Your task to perform on an android device: turn on translation in the chrome app Image 0: 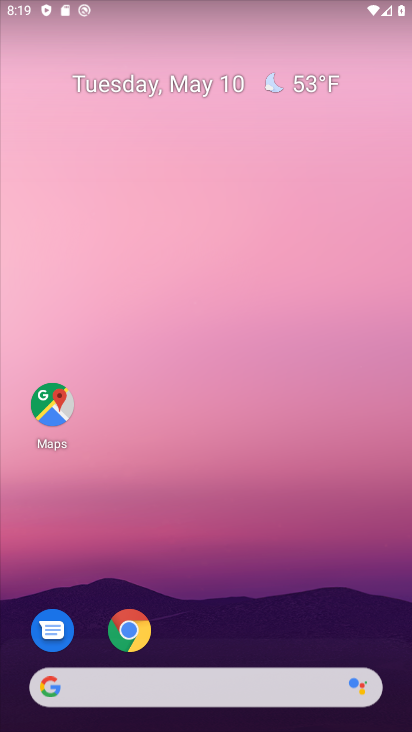
Step 0: click (141, 634)
Your task to perform on an android device: turn on translation in the chrome app Image 1: 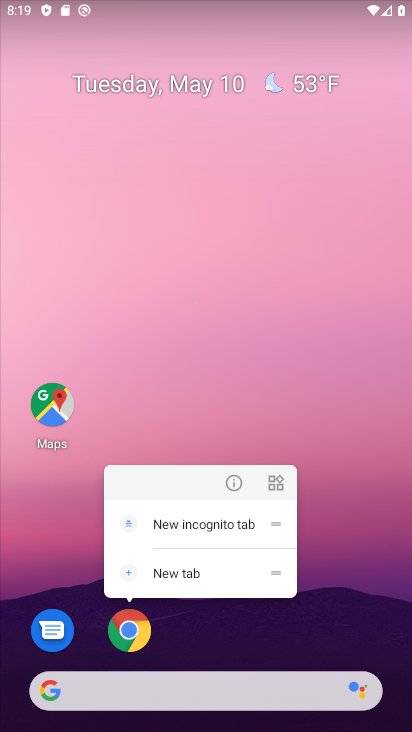
Step 1: click (137, 634)
Your task to perform on an android device: turn on translation in the chrome app Image 2: 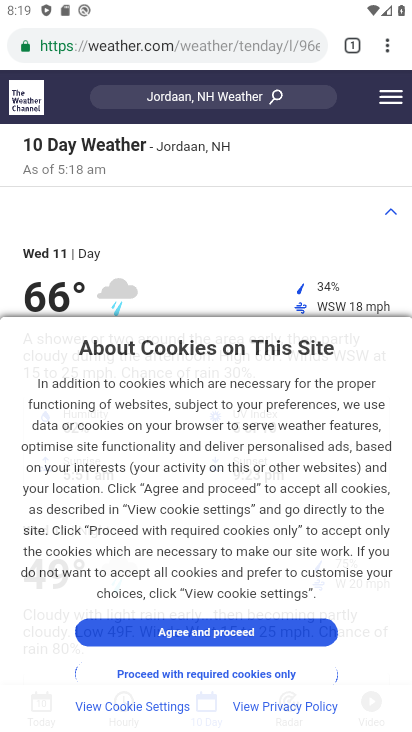
Step 2: drag from (392, 48) to (280, 489)
Your task to perform on an android device: turn on translation in the chrome app Image 3: 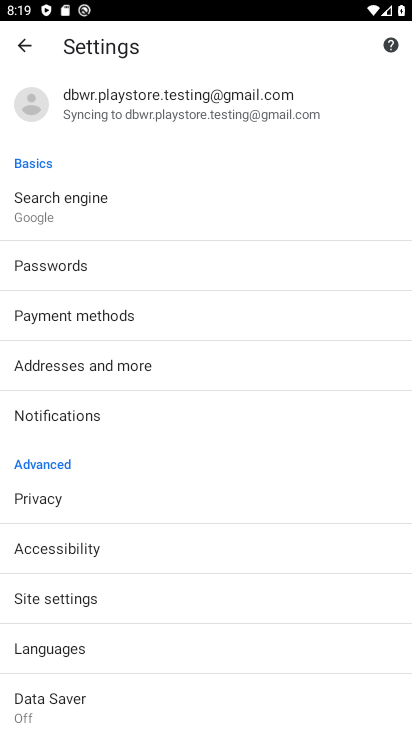
Step 3: drag from (174, 667) to (197, 496)
Your task to perform on an android device: turn on translation in the chrome app Image 4: 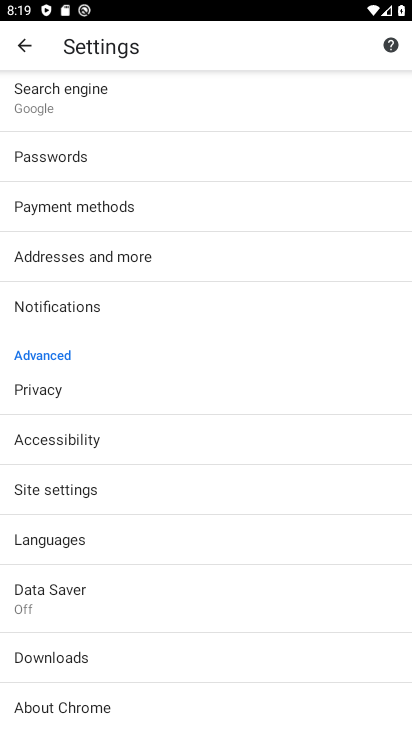
Step 4: click (95, 532)
Your task to perform on an android device: turn on translation in the chrome app Image 5: 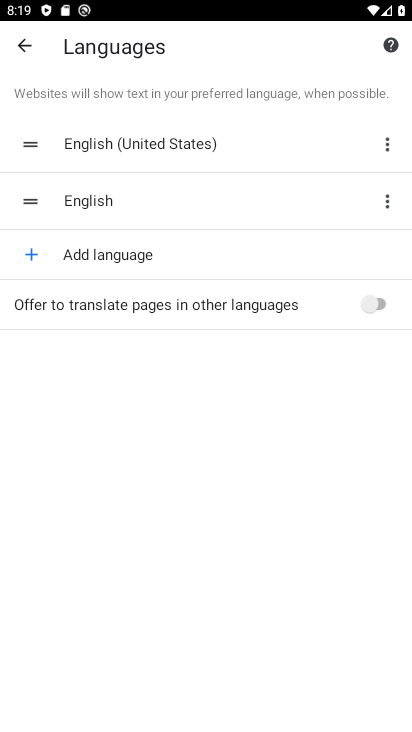
Step 5: click (387, 300)
Your task to perform on an android device: turn on translation in the chrome app Image 6: 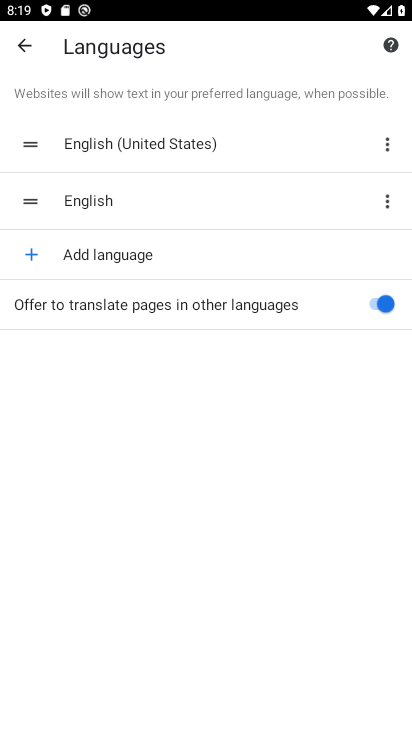
Step 6: task complete